Your task to perform on an android device: Open Maps and search for coffee Image 0: 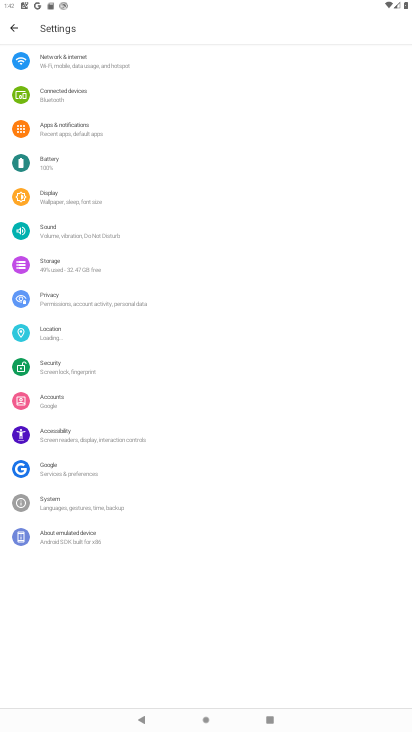
Step 0: press home button
Your task to perform on an android device: Open Maps and search for coffee Image 1: 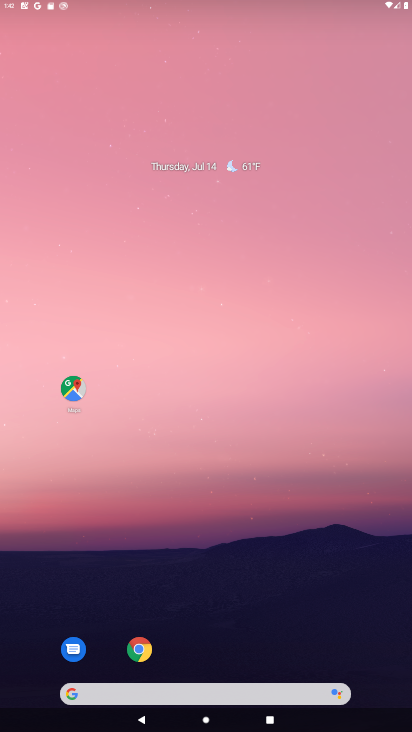
Step 1: drag from (314, 676) to (333, 1)
Your task to perform on an android device: Open Maps and search for coffee Image 2: 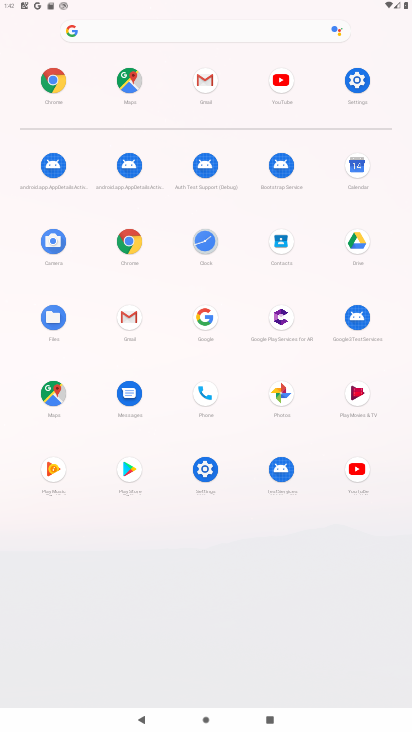
Step 2: click (65, 388)
Your task to perform on an android device: Open Maps and search for coffee Image 3: 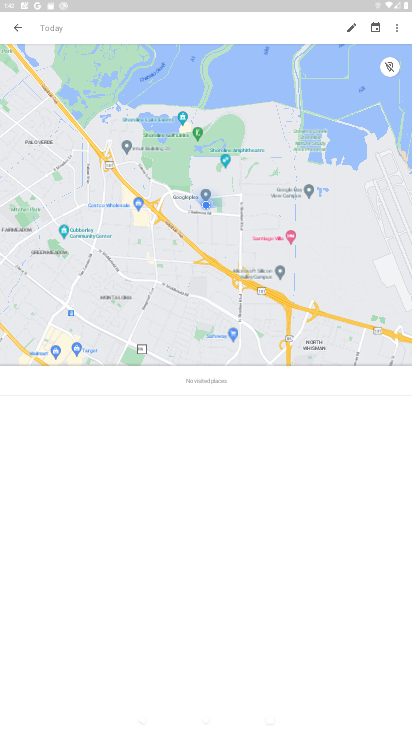
Step 3: press back button
Your task to perform on an android device: Open Maps and search for coffee Image 4: 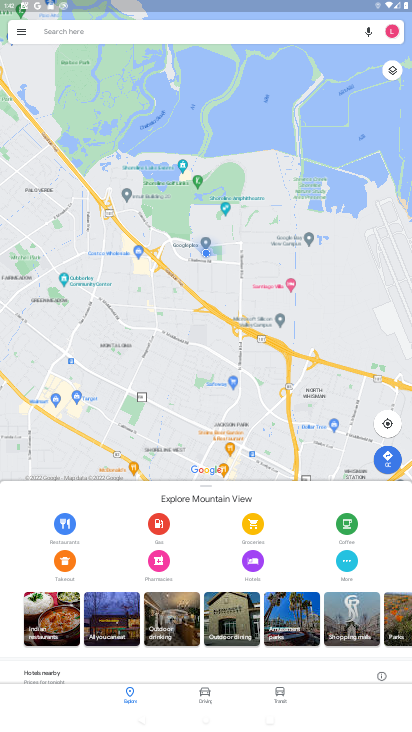
Step 4: click (293, 31)
Your task to perform on an android device: Open Maps and search for coffee Image 5: 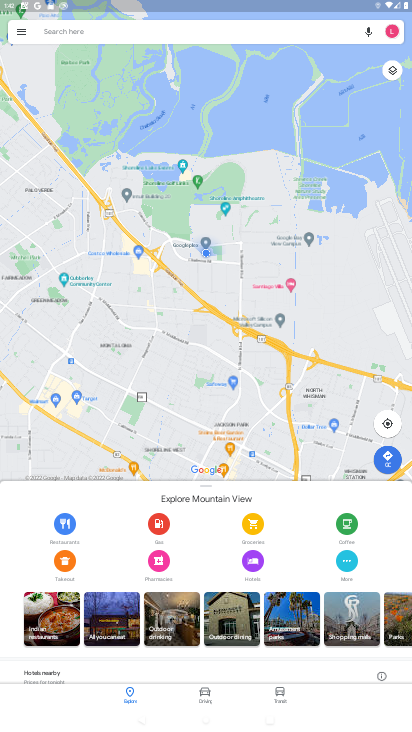
Step 5: click (293, 31)
Your task to perform on an android device: Open Maps and search for coffee Image 6: 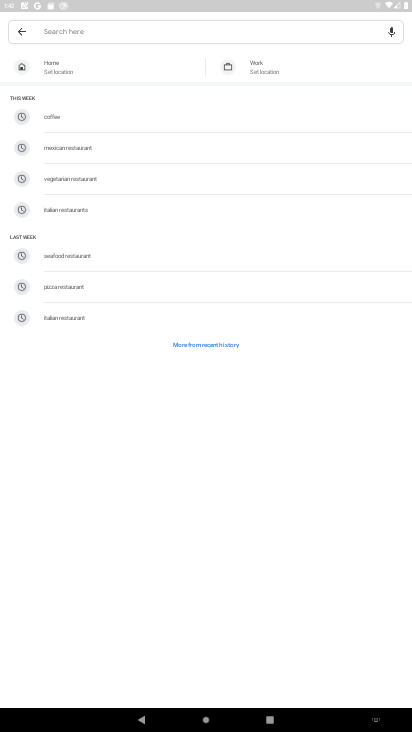
Step 6: type "coffee"
Your task to perform on an android device: Open Maps and search for coffee Image 7: 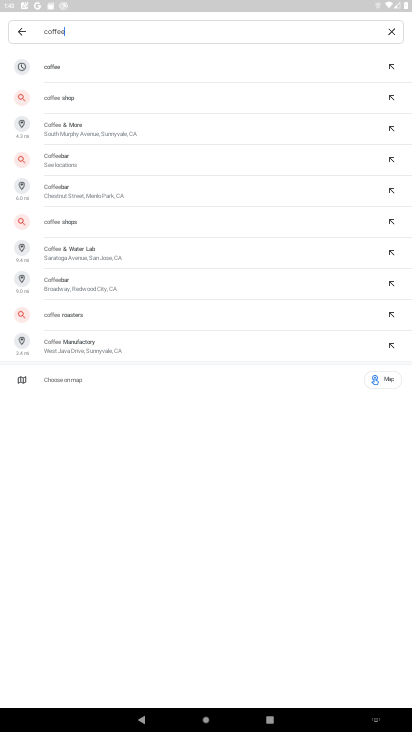
Step 7: click (97, 71)
Your task to perform on an android device: Open Maps and search for coffee Image 8: 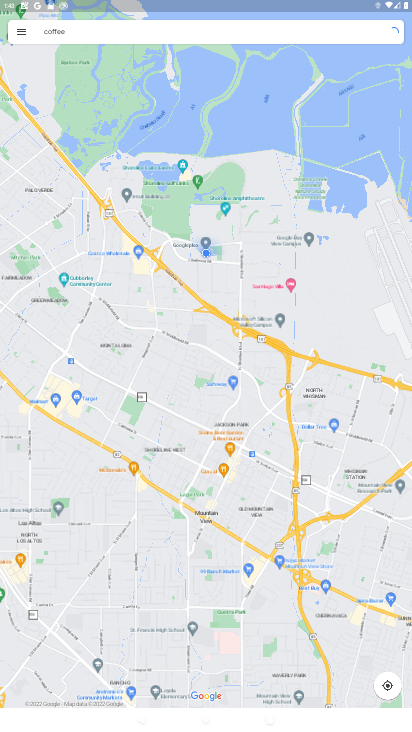
Step 8: task complete